Your task to perform on an android device: Empty the shopping cart on newegg. Add macbook air to the cart on newegg, then select checkout. Image 0: 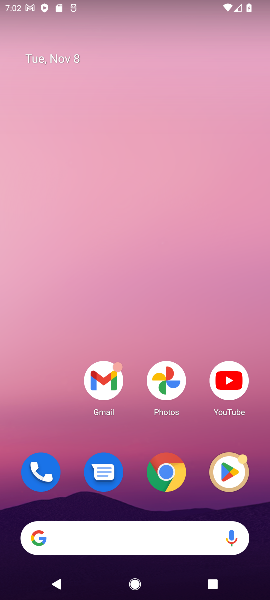
Step 0: click (161, 479)
Your task to perform on an android device: Empty the shopping cart on newegg. Add macbook air to the cart on newegg, then select checkout. Image 1: 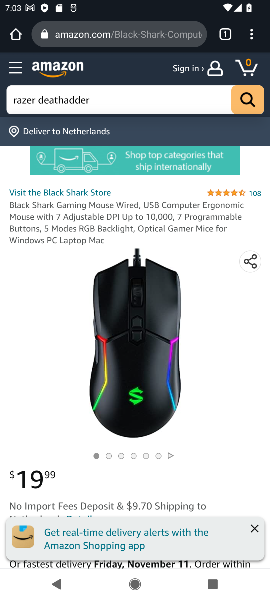
Step 1: click (131, 31)
Your task to perform on an android device: Empty the shopping cart on newegg. Add macbook air to the cart on newegg, then select checkout. Image 2: 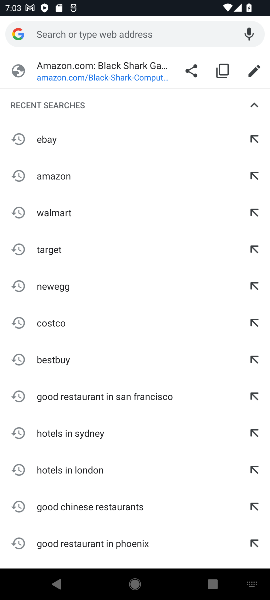
Step 2: click (43, 288)
Your task to perform on an android device: Empty the shopping cart on newegg. Add macbook air to the cart on newegg, then select checkout. Image 3: 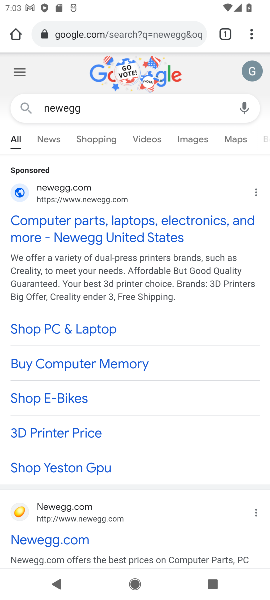
Step 3: click (74, 507)
Your task to perform on an android device: Empty the shopping cart on newegg. Add macbook air to the cart on newegg, then select checkout. Image 4: 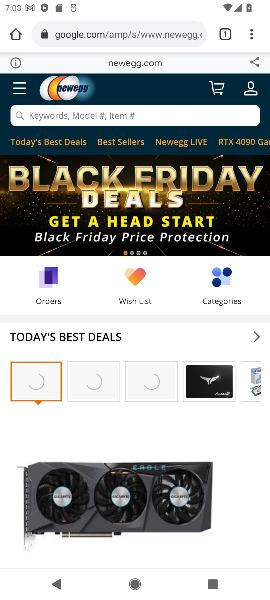
Step 4: click (161, 112)
Your task to perform on an android device: Empty the shopping cart on newegg. Add macbook air to the cart on newegg, then select checkout. Image 5: 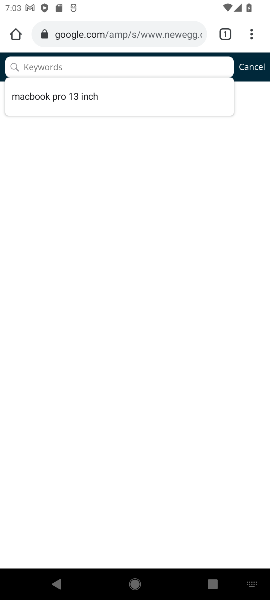
Step 5: click (46, 64)
Your task to perform on an android device: Empty the shopping cart on newegg. Add macbook air to the cart on newegg, then select checkout. Image 6: 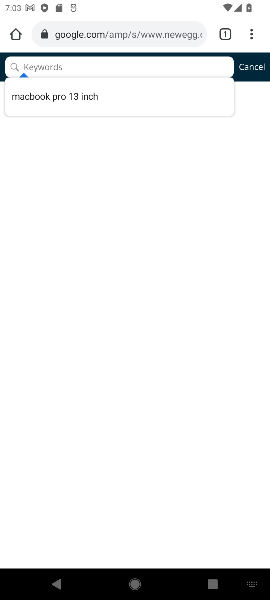
Step 6: click (32, 69)
Your task to perform on an android device: Empty the shopping cart on newegg. Add macbook air to the cart on newegg, then select checkout. Image 7: 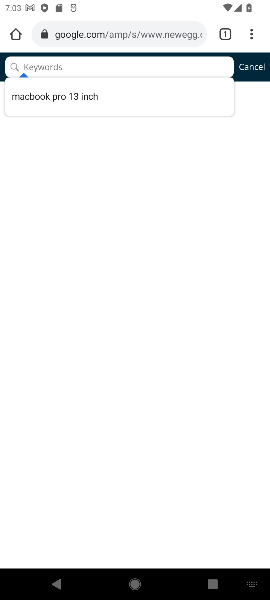
Step 7: click (32, 68)
Your task to perform on an android device: Empty the shopping cart on newegg. Add macbook air to the cart on newegg, then select checkout. Image 8: 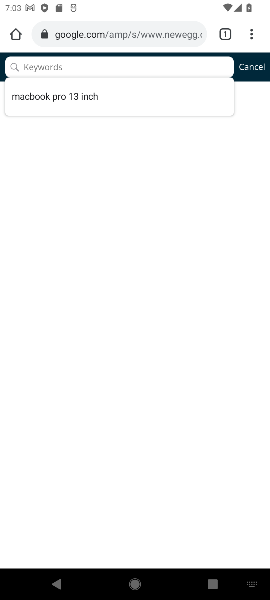
Step 8: click (49, 67)
Your task to perform on an android device: Empty the shopping cart on newegg. Add macbook air to the cart on newegg, then select checkout. Image 9: 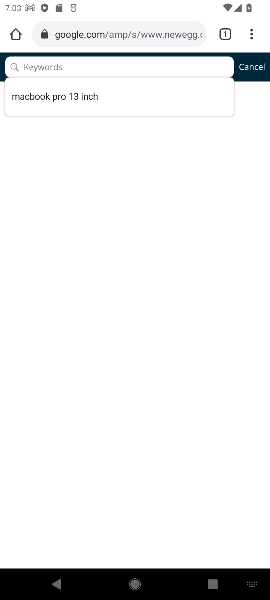
Step 9: click (143, 64)
Your task to perform on an android device: Empty the shopping cart on newegg. Add macbook air to the cart on newegg, then select checkout. Image 10: 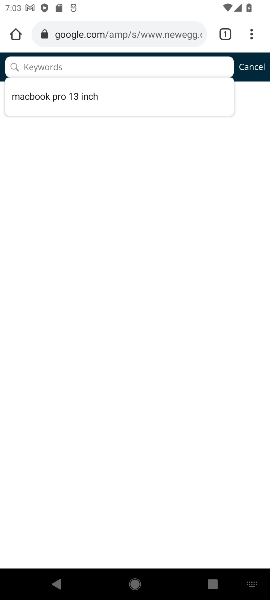
Step 10: click (12, 63)
Your task to perform on an android device: Empty the shopping cart on newegg. Add macbook air to the cart on newegg, then select checkout. Image 11: 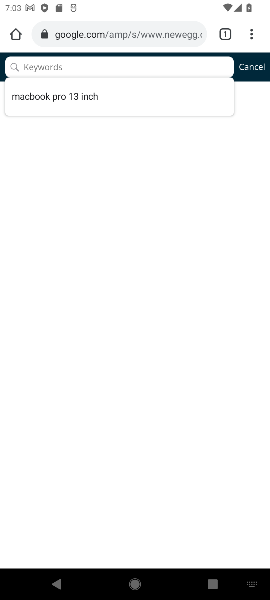
Step 11: click (26, 67)
Your task to perform on an android device: Empty the shopping cart on newegg. Add macbook air to the cart on newegg, then select checkout. Image 12: 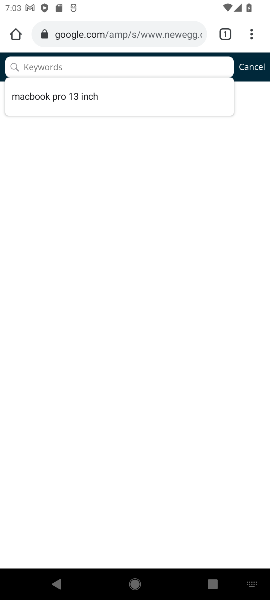
Step 12: click (10, 64)
Your task to perform on an android device: Empty the shopping cart on newegg. Add macbook air to the cart on newegg, then select checkout. Image 13: 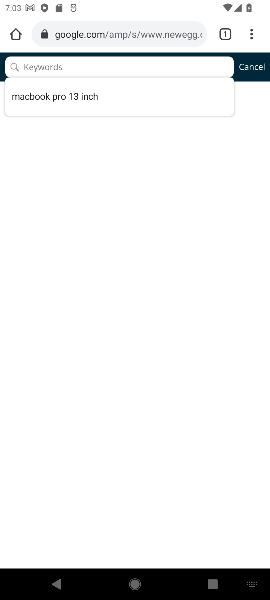
Step 13: type "macbook air"
Your task to perform on an android device: Empty the shopping cart on newegg. Add macbook air to the cart on newegg, then select checkout. Image 14: 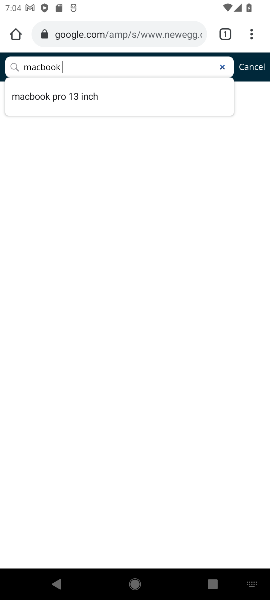
Step 14: press enter
Your task to perform on an android device: Empty the shopping cart on newegg. Add macbook air to the cart on newegg, then select checkout. Image 15: 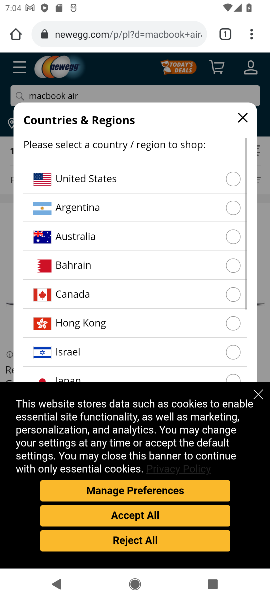
Step 15: click (258, 393)
Your task to perform on an android device: Empty the shopping cart on newegg. Add macbook air to the cart on newegg, then select checkout. Image 16: 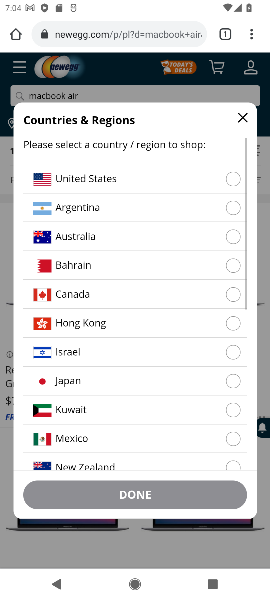
Step 16: click (241, 113)
Your task to perform on an android device: Empty the shopping cart on newegg. Add macbook air to the cart on newegg, then select checkout. Image 17: 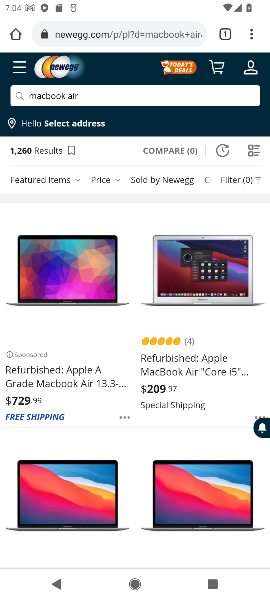
Step 17: click (69, 364)
Your task to perform on an android device: Empty the shopping cart on newegg. Add macbook air to the cart on newegg, then select checkout. Image 18: 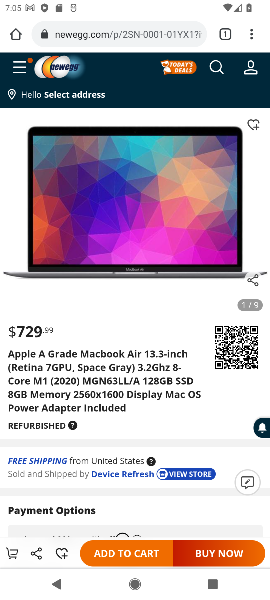
Step 18: click (130, 555)
Your task to perform on an android device: Empty the shopping cart on newegg. Add macbook air to the cart on newegg, then select checkout. Image 19: 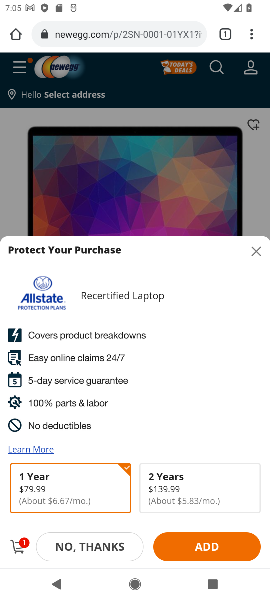
Step 19: click (15, 546)
Your task to perform on an android device: Empty the shopping cart on newegg. Add macbook air to the cart on newegg, then select checkout. Image 20: 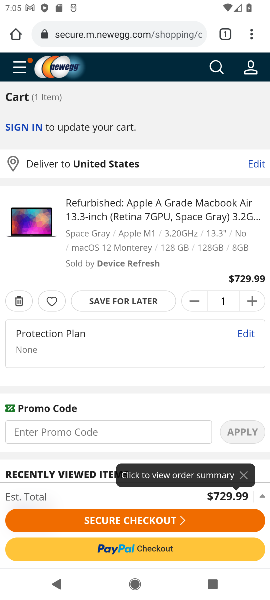
Step 20: drag from (110, 389) to (148, 297)
Your task to perform on an android device: Empty the shopping cart on newegg. Add macbook air to the cart on newegg, then select checkout. Image 21: 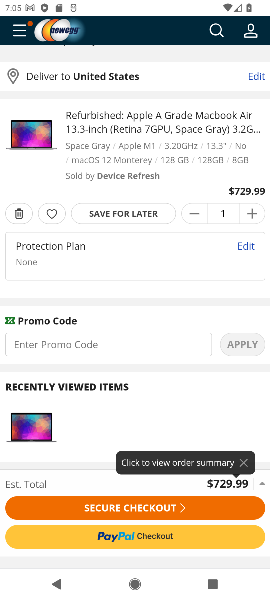
Step 21: click (167, 508)
Your task to perform on an android device: Empty the shopping cart on newegg. Add macbook air to the cart on newegg, then select checkout. Image 22: 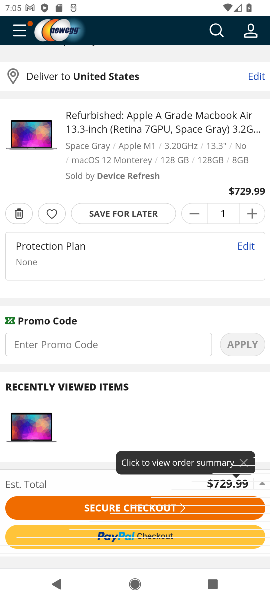
Step 22: click (146, 505)
Your task to perform on an android device: Empty the shopping cart on newegg. Add macbook air to the cart on newegg, then select checkout. Image 23: 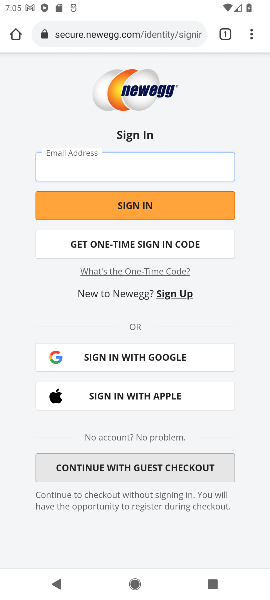
Step 23: task complete